Your task to perform on an android device: toggle show notifications on the lock screen Image 0: 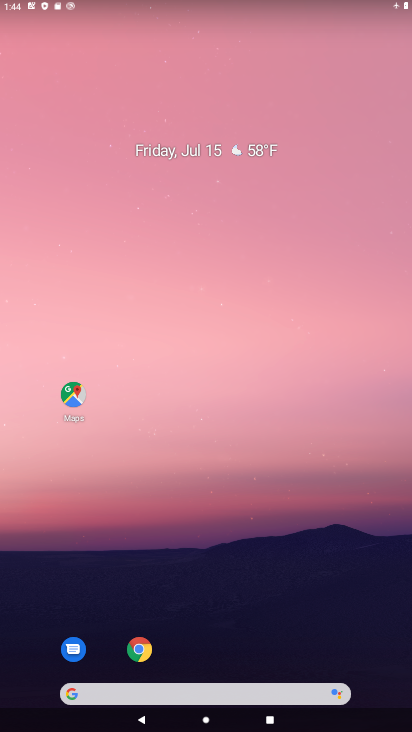
Step 0: drag from (227, 692) to (273, 0)
Your task to perform on an android device: toggle show notifications on the lock screen Image 1: 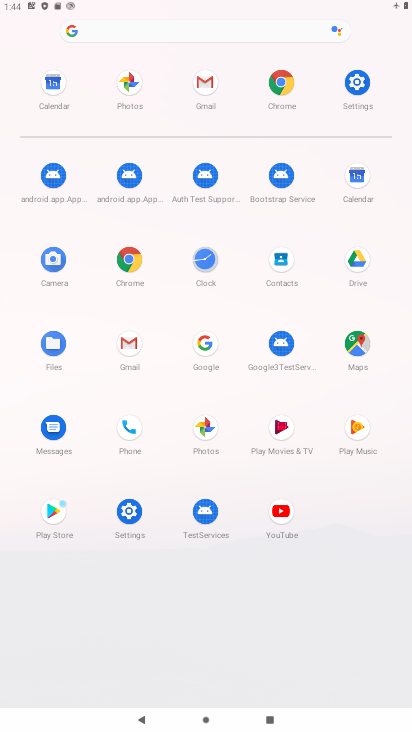
Step 1: click (351, 78)
Your task to perform on an android device: toggle show notifications on the lock screen Image 2: 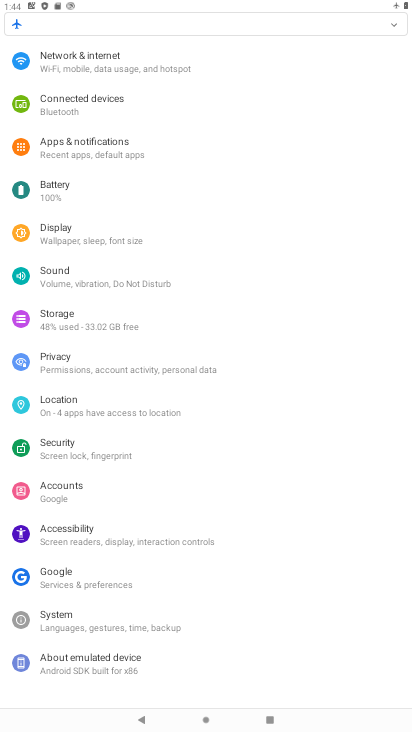
Step 2: click (224, 149)
Your task to perform on an android device: toggle show notifications on the lock screen Image 3: 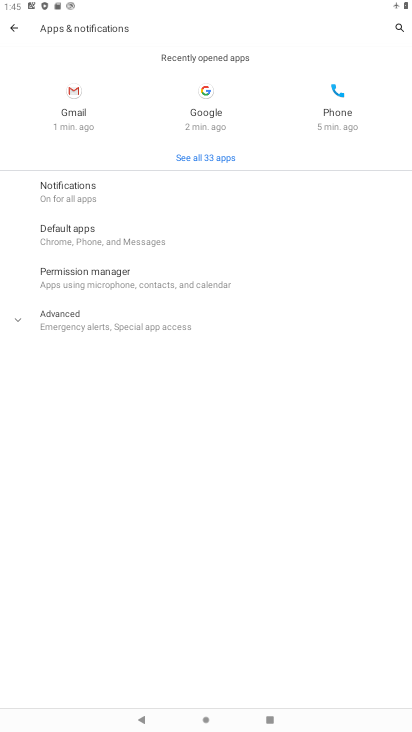
Step 3: click (94, 183)
Your task to perform on an android device: toggle show notifications on the lock screen Image 4: 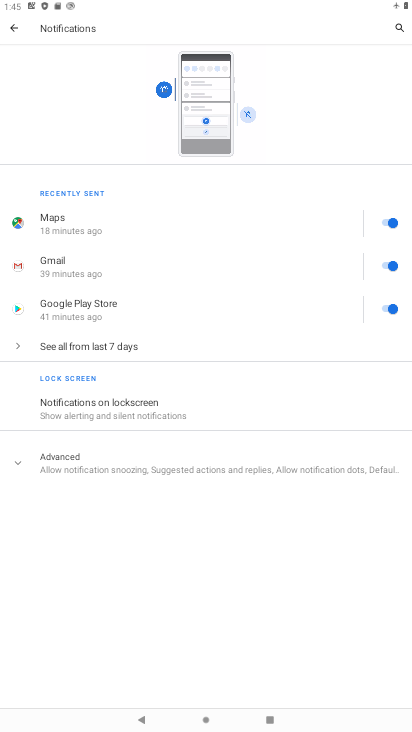
Step 4: click (172, 408)
Your task to perform on an android device: toggle show notifications on the lock screen Image 5: 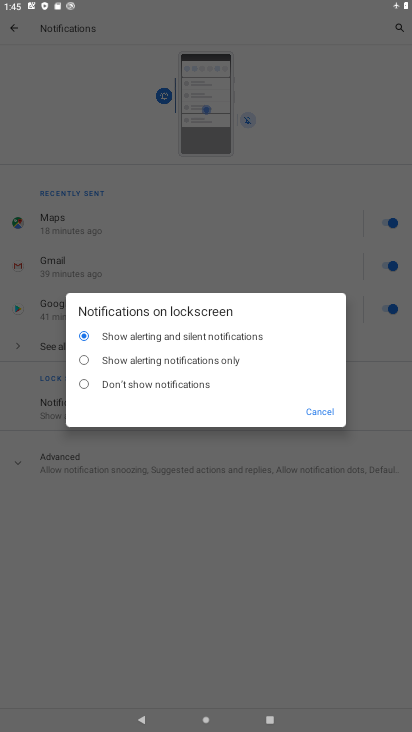
Step 5: click (153, 385)
Your task to perform on an android device: toggle show notifications on the lock screen Image 6: 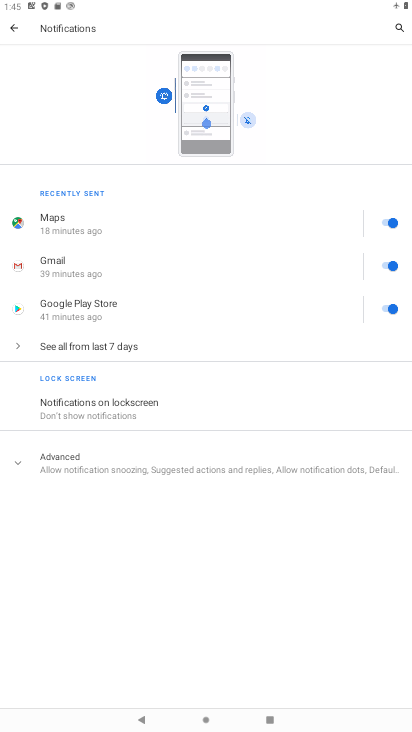
Step 6: task complete